Your task to perform on an android device: open wifi settings Image 0: 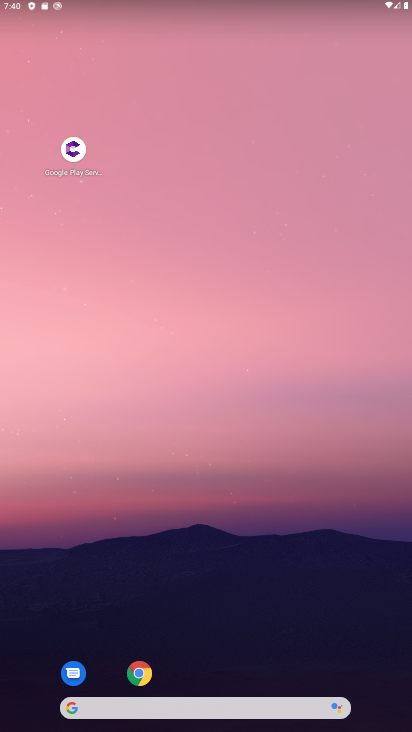
Step 0: drag from (184, 704) to (411, 131)
Your task to perform on an android device: open wifi settings Image 1: 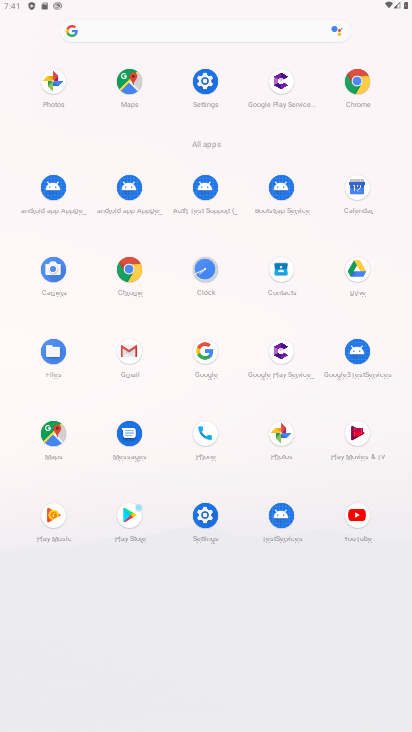
Step 1: click (206, 80)
Your task to perform on an android device: open wifi settings Image 2: 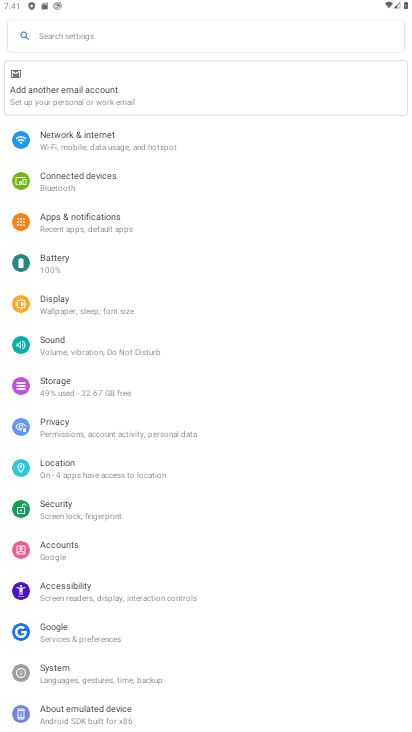
Step 2: click (84, 151)
Your task to perform on an android device: open wifi settings Image 3: 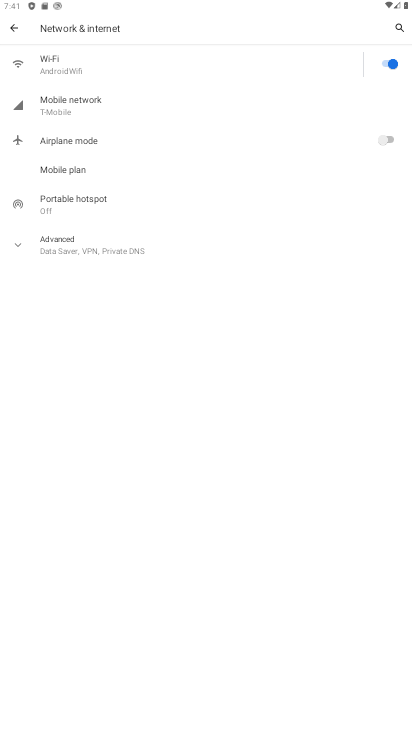
Step 3: click (53, 67)
Your task to perform on an android device: open wifi settings Image 4: 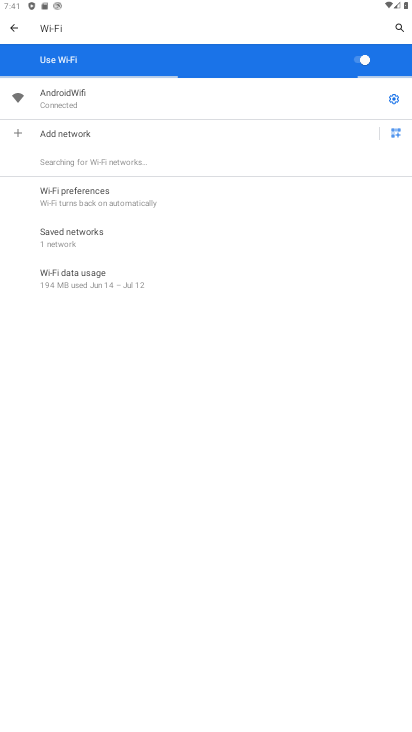
Step 4: click (396, 102)
Your task to perform on an android device: open wifi settings Image 5: 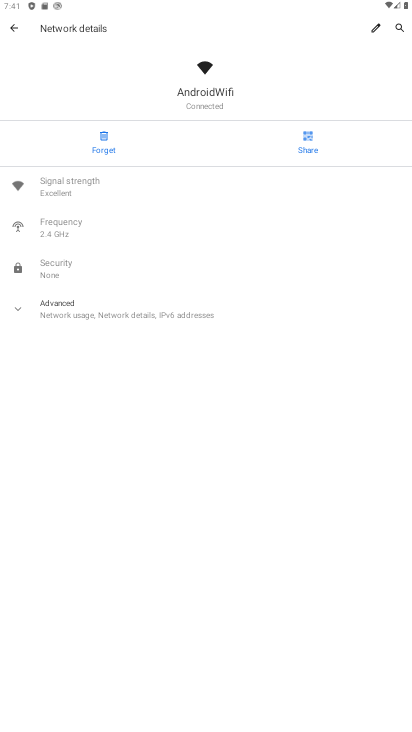
Step 5: task complete